Your task to perform on an android device: open app "Cash App" (install if not already installed) Image 0: 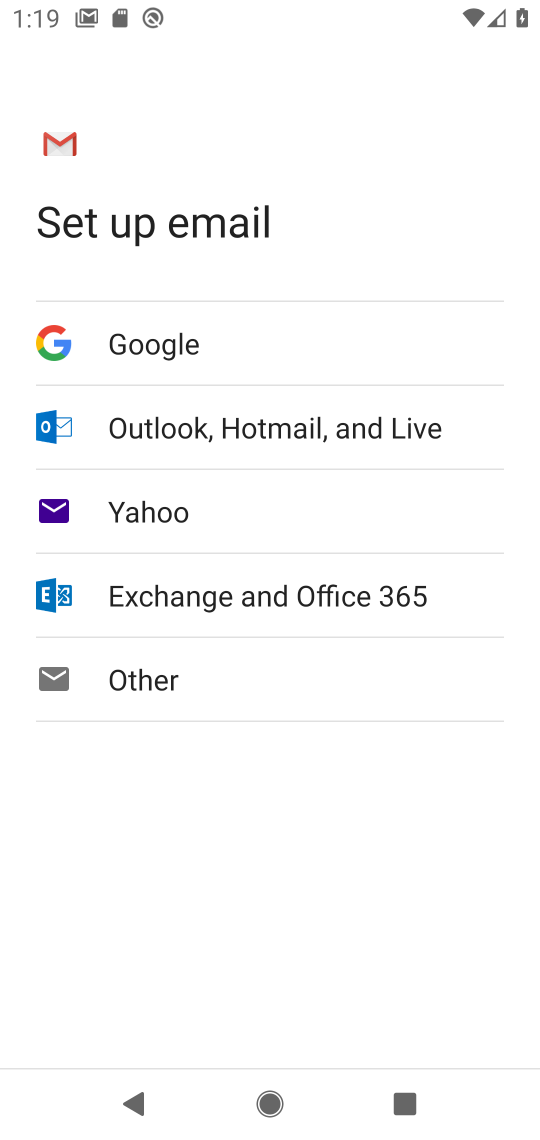
Step 0: press home button
Your task to perform on an android device: open app "Cash App" (install if not already installed) Image 1: 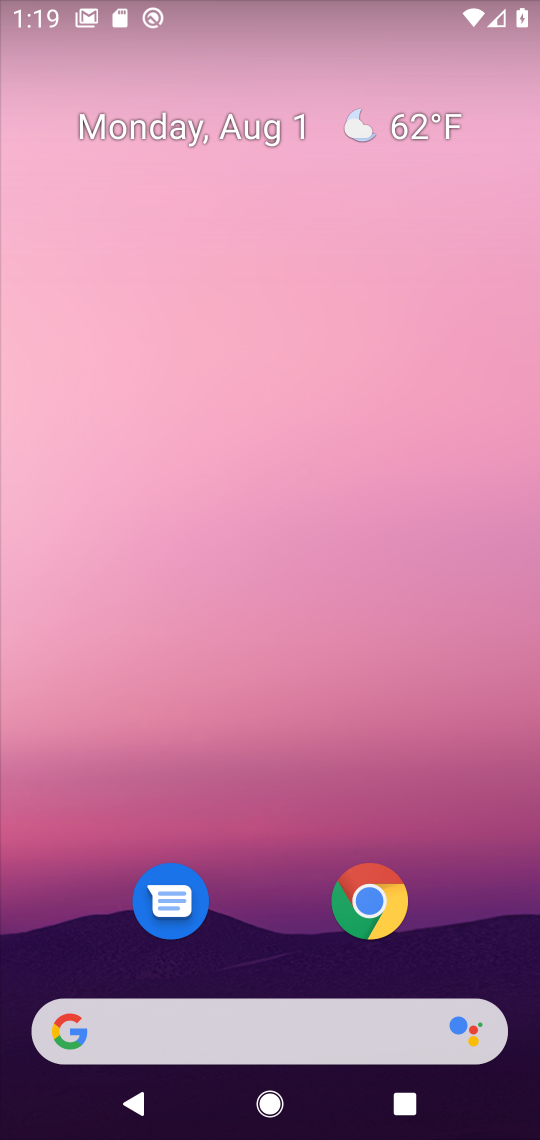
Step 1: drag from (306, 915) to (347, 312)
Your task to perform on an android device: open app "Cash App" (install if not already installed) Image 2: 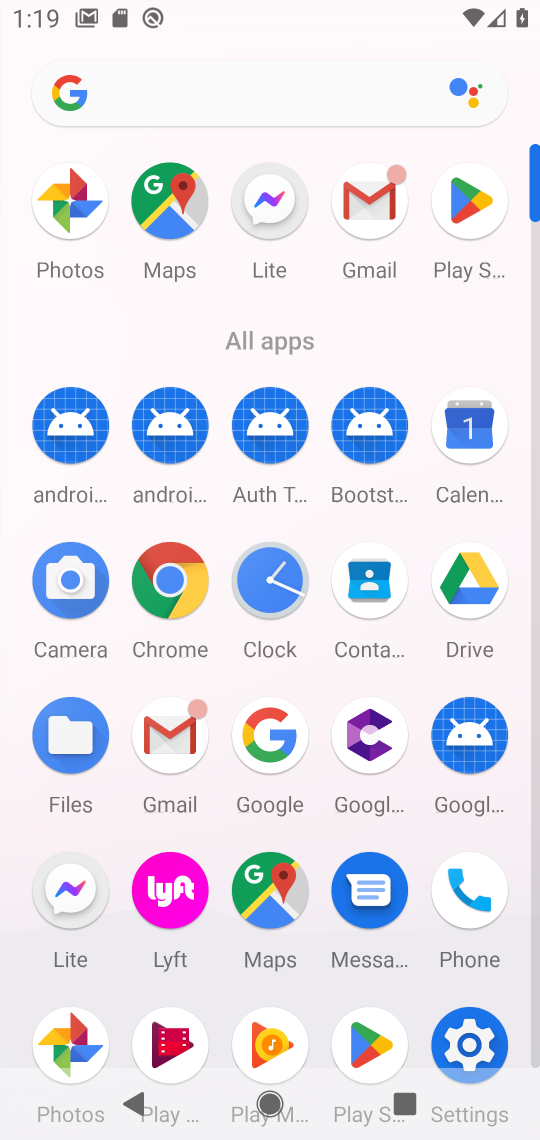
Step 2: click (470, 213)
Your task to perform on an android device: open app "Cash App" (install if not already installed) Image 3: 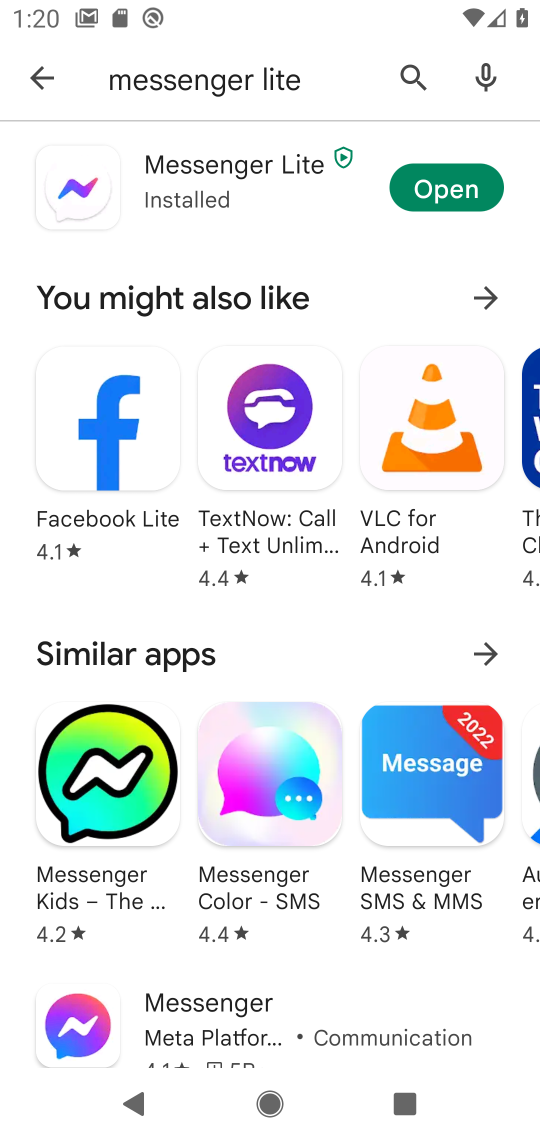
Step 3: click (401, 75)
Your task to perform on an android device: open app "Cash App" (install if not already installed) Image 4: 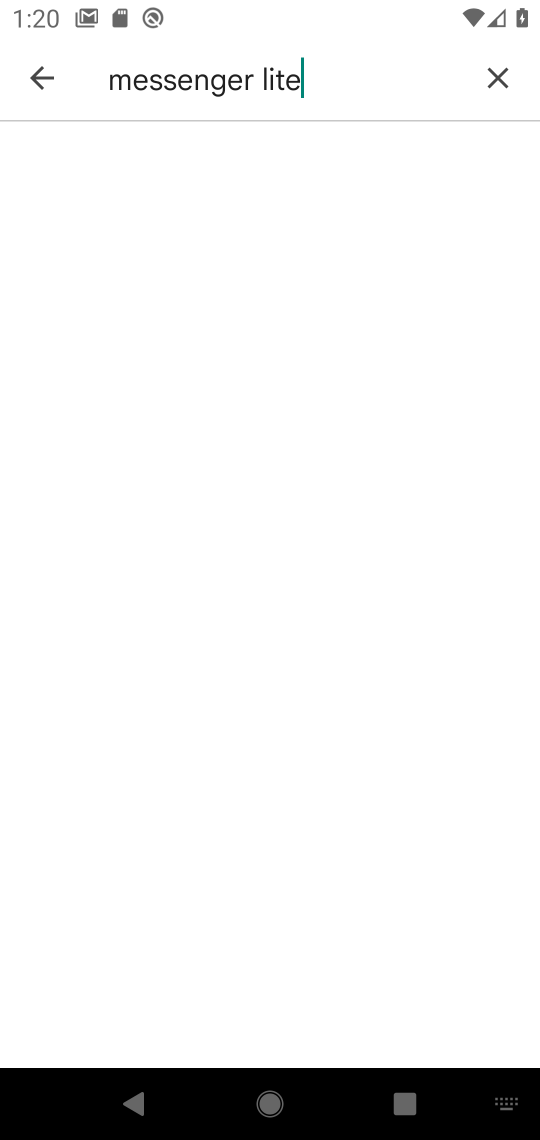
Step 4: click (506, 81)
Your task to perform on an android device: open app "Cash App" (install if not already installed) Image 5: 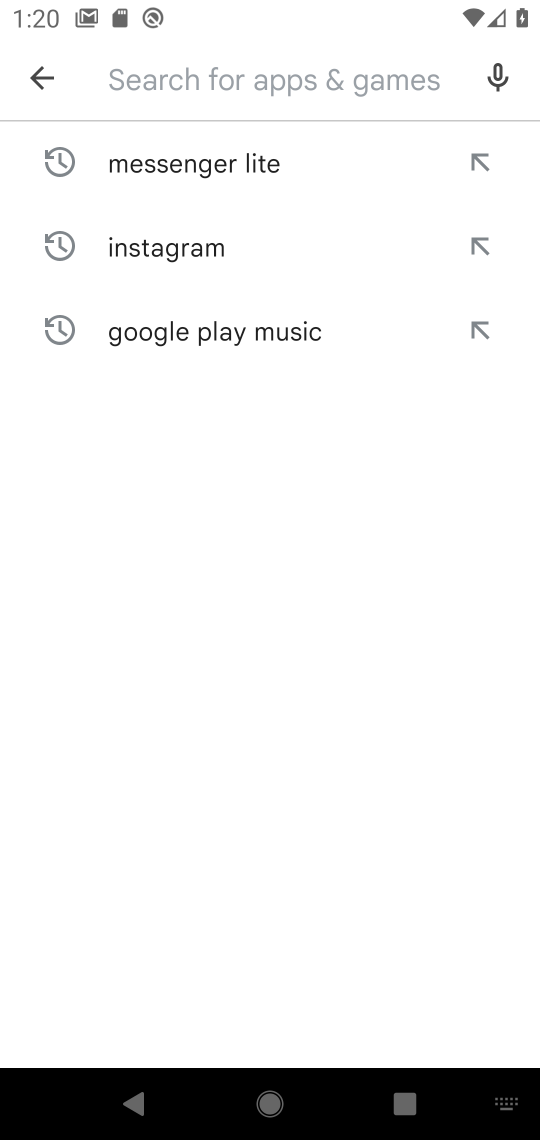
Step 5: type "Cash App"
Your task to perform on an android device: open app "Cash App" (install if not already installed) Image 6: 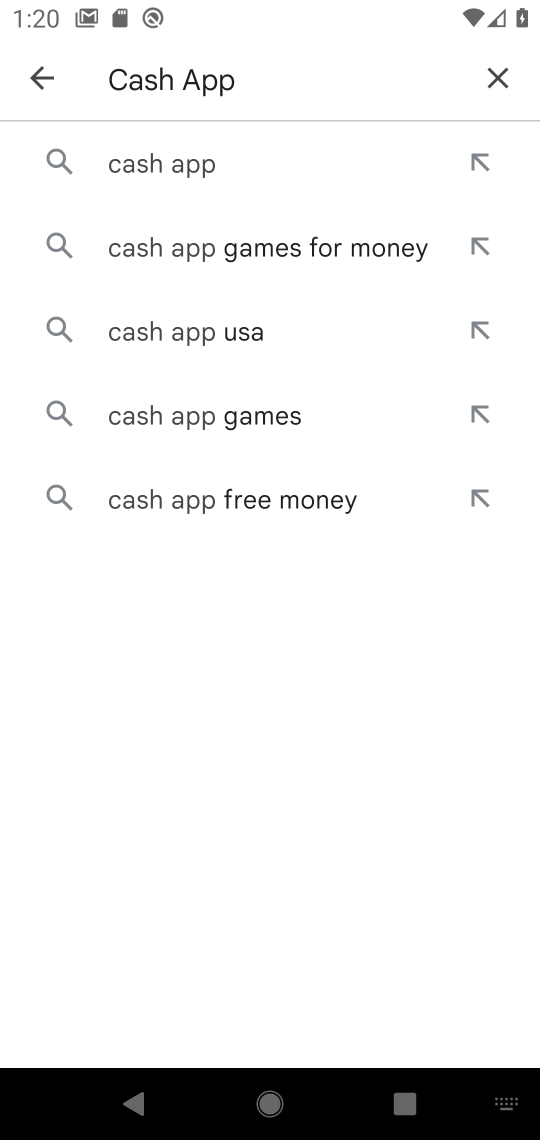
Step 6: click (180, 173)
Your task to perform on an android device: open app "Cash App" (install if not already installed) Image 7: 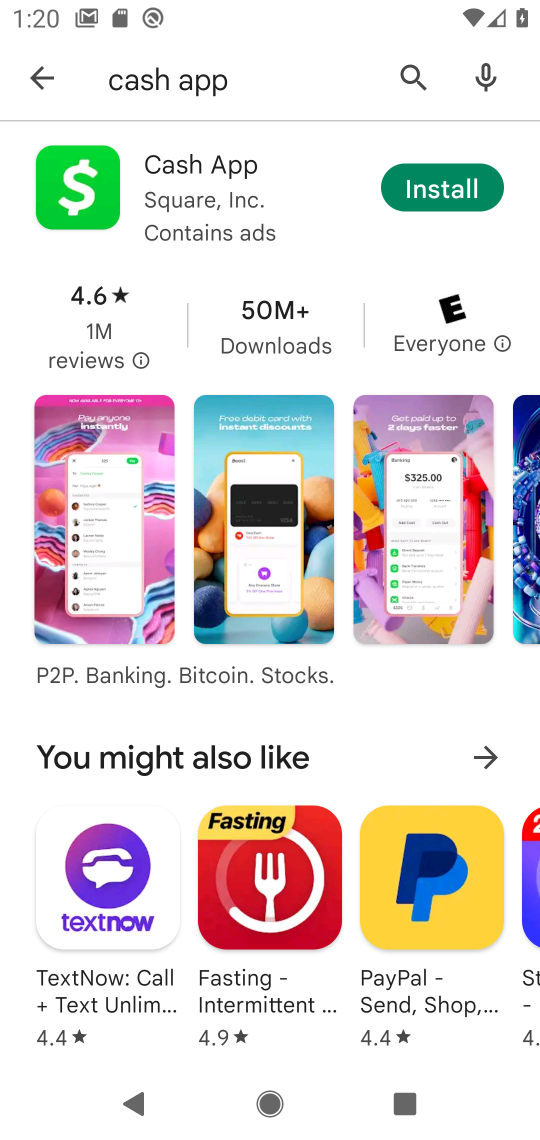
Step 7: click (445, 187)
Your task to perform on an android device: open app "Cash App" (install if not already installed) Image 8: 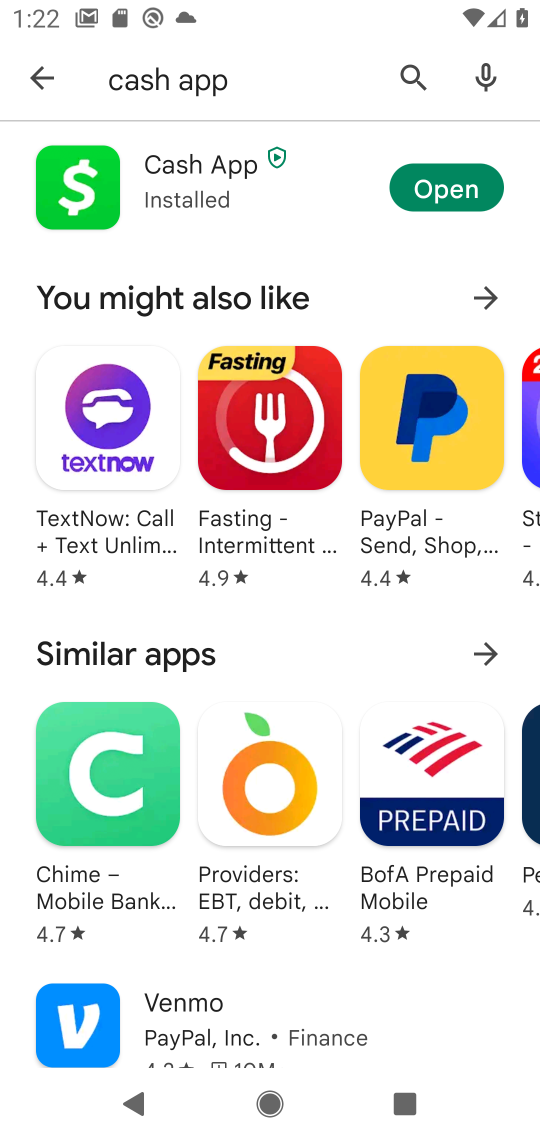
Step 8: task complete